Your task to perform on an android device: move an email to a new category in the gmail app Image 0: 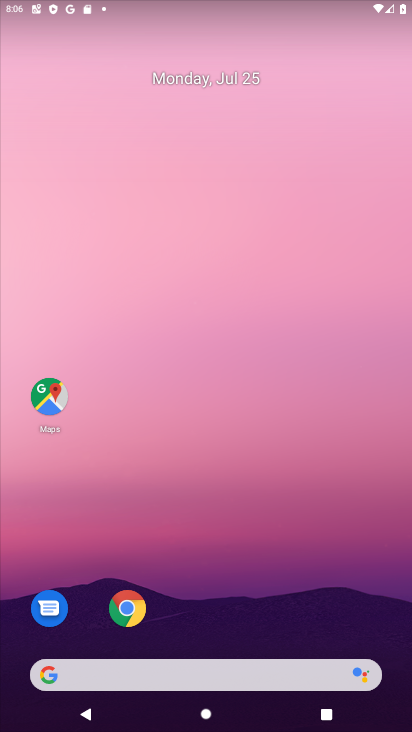
Step 0: drag from (292, 668) to (270, 230)
Your task to perform on an android device: move an email to a new category in the gmail app Image 1: 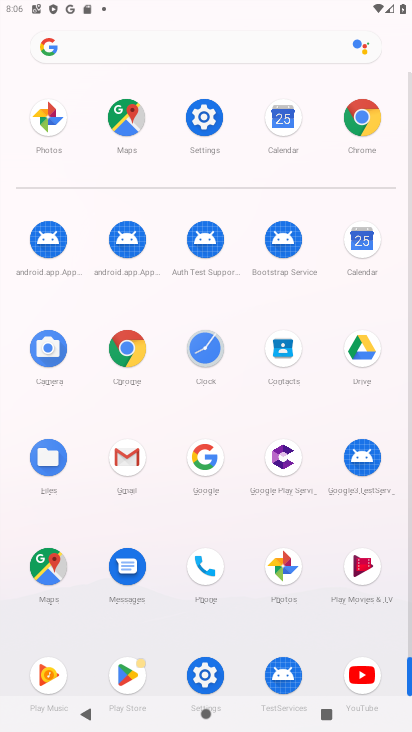
Step 1: click (127, 472)
Your task to perform on an android device: move an email to a new category in the gmail app Image 2: 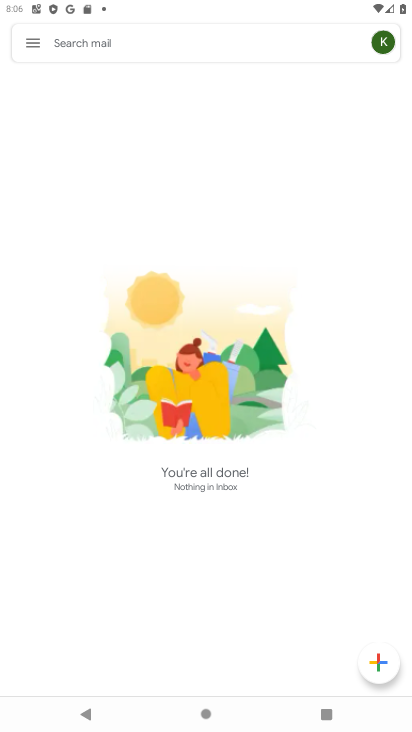
Step 2: click (35, 37)
Your task to perform on an android device: move an email to a new category in the gmail app Image 3: 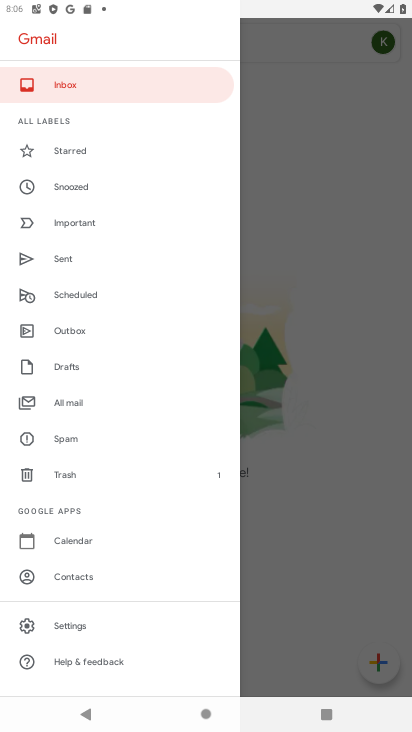
Step 3: click (88, 406)
Your task to perform on an android device: move an email to a new category in the gmail app Image 4: 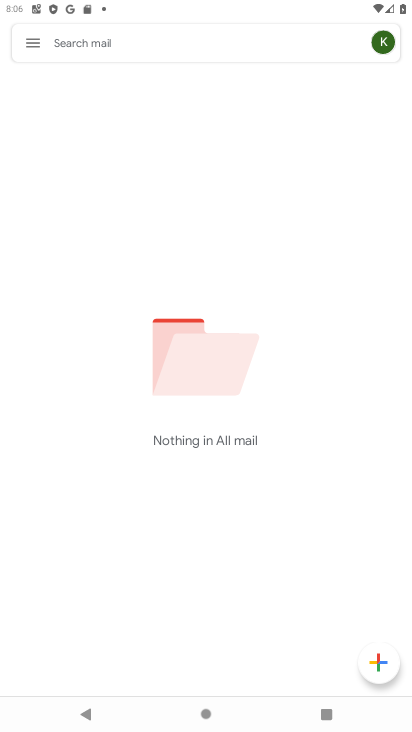
Step 4: task complete